Your task to perform on an android device: check google app version Image 0: 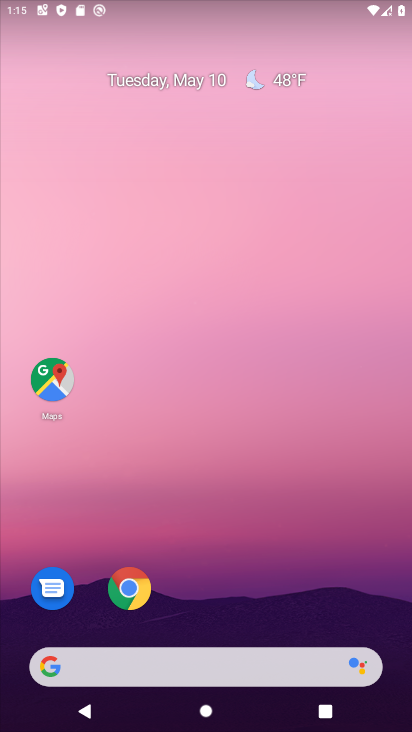
Step 0: drag from (235, 399) to (269, 163)
Your task to perform on an android device: check google app version Image 1: 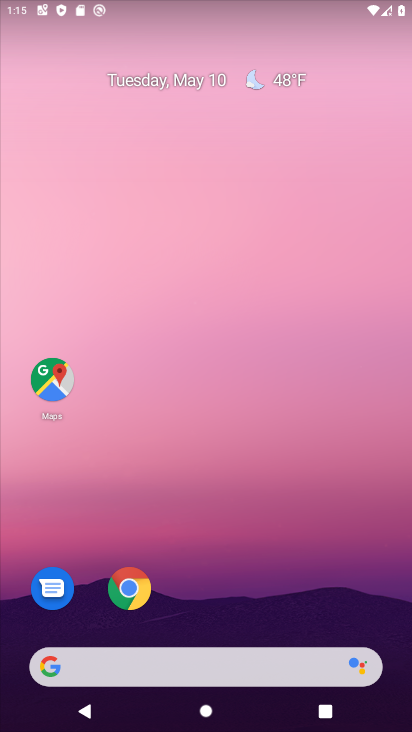
Step 1: drag from (178, 627) to (275, 173)
Your task to perform on an android device: check google app version Image 2: 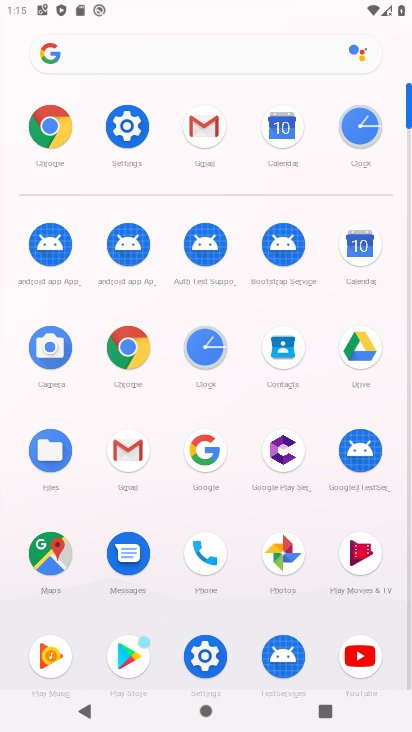
Step 2: drag from (243, 609) to (269, 219)
Your task to perform on an android device: check google app version Image 3: 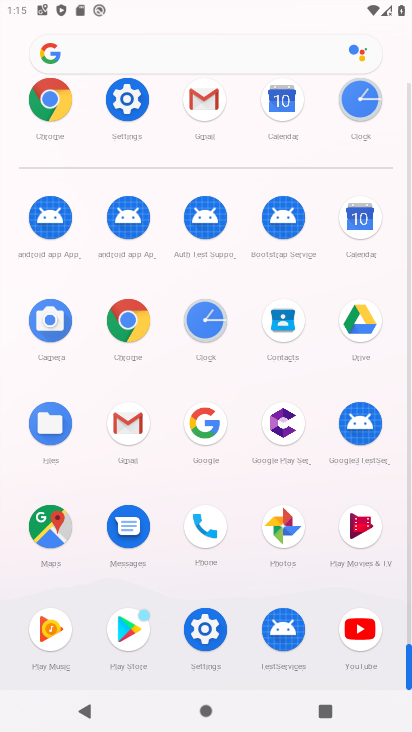
Step 3: click (197, 424)
Your task to perform on an android device: check google app version Image 4: 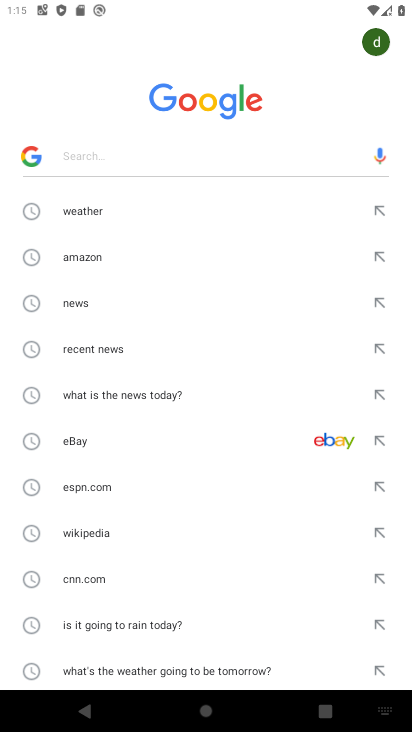
Step 4: click (35, 159)
Your task to perform on an android device: check google app version Image 5: 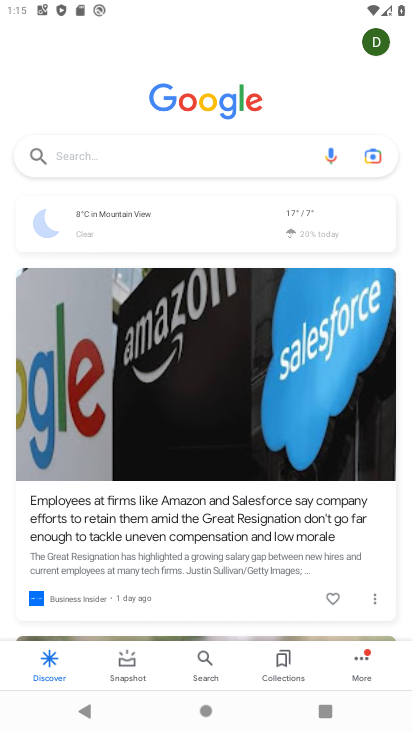
Step 5: click (366, 660)
Your task to perform on an android device: check google app version Image 6: 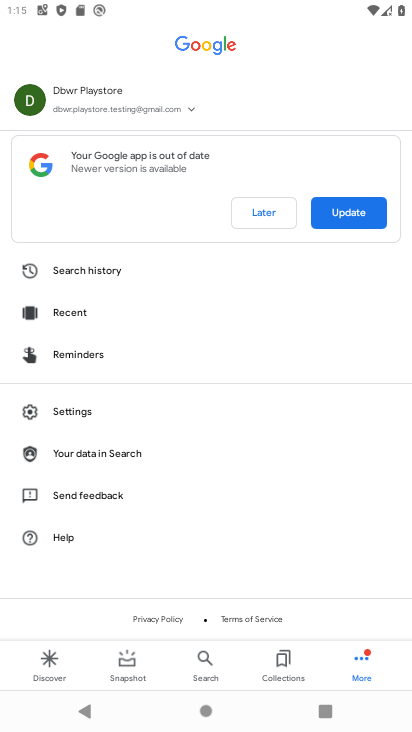
Step 6: click (101, 410)
Your task to perform on an android device: check google app version Image 7: 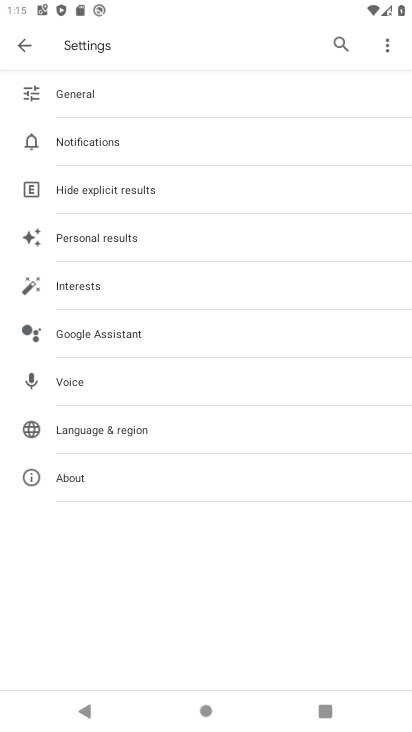
Step 7: click (90, 471)
Your task to perform on an android device: check google app version Image 8: 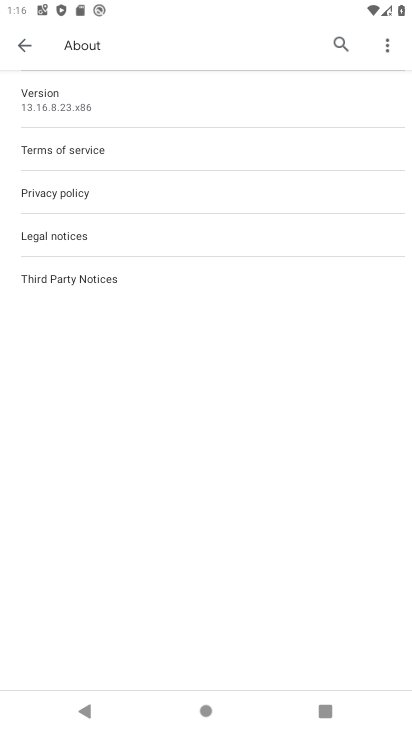
Step 8: task complete